Your task to perform on an android device: Clear the shopping cart on amazon.com. Image 0: 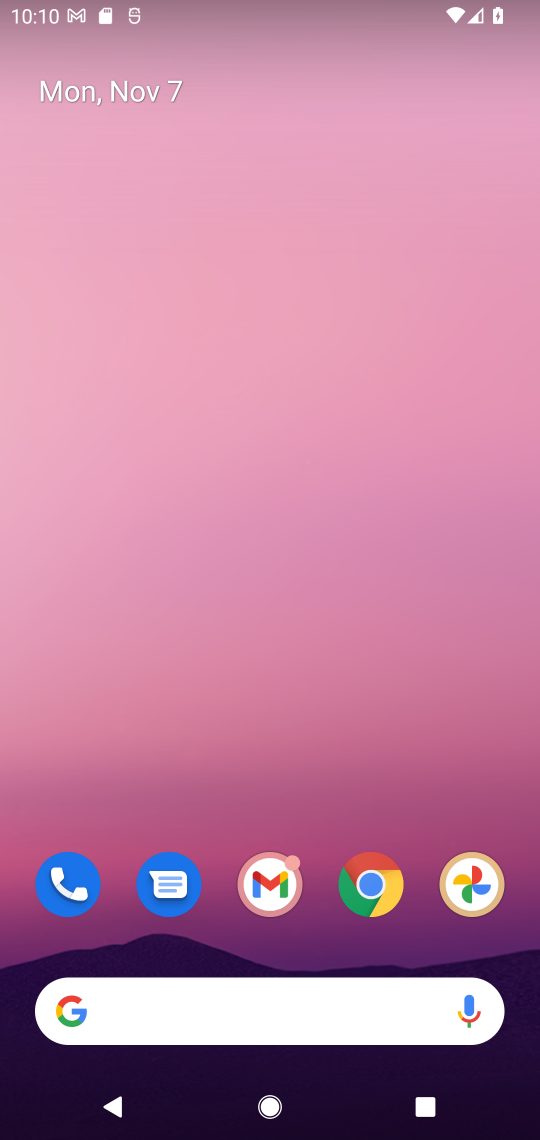
Step 0: click (374, 883)
Your task to perform on an android device: Clear the shopping cart on amazon.com. Image 1: 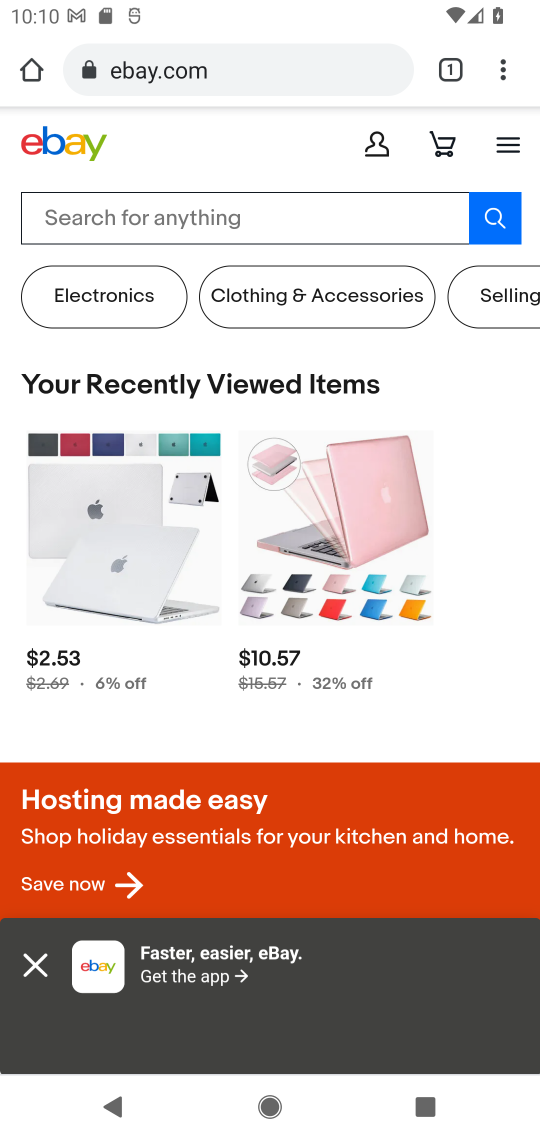
Step 1: click (30, 81)
Your task to perform on an android device: Clear the shopping cart on amazon.com. Image 2: 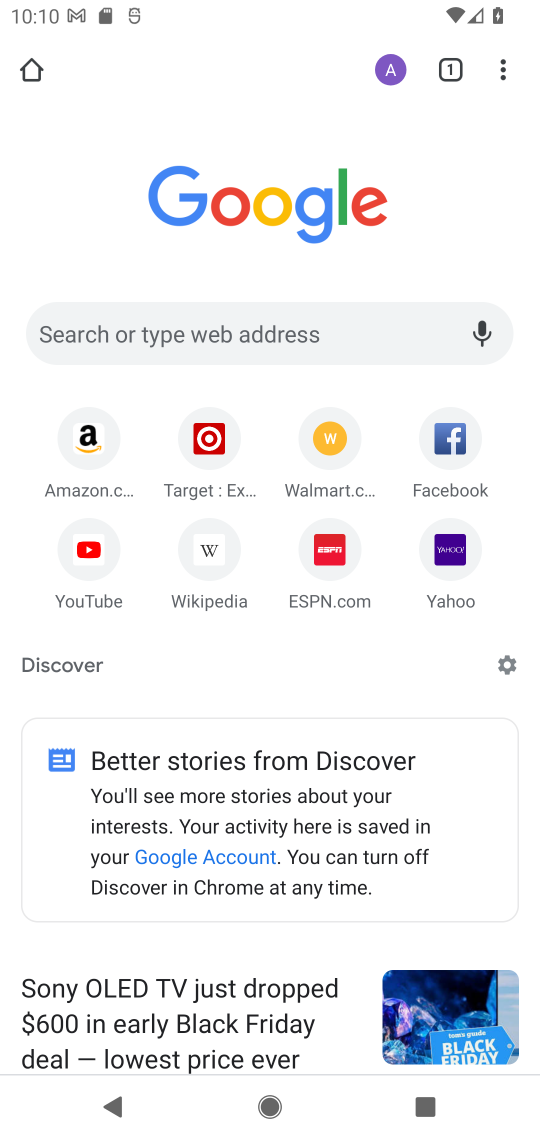
Step 2: click (106, 432)
Your task to perform on an android device: Clear the shopping cart on amazon.com. Image 3: 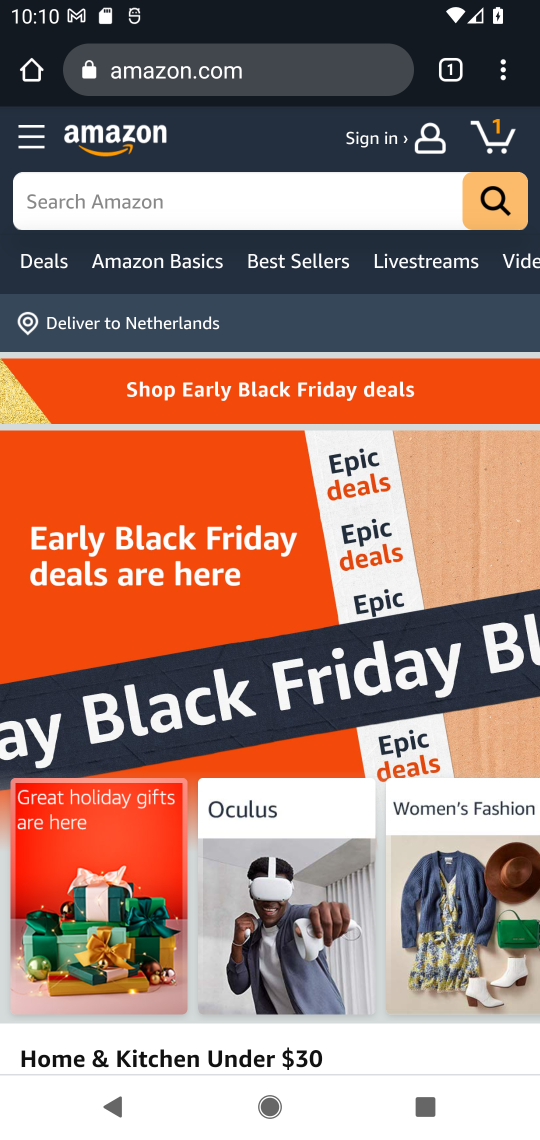
Step 3: click (488, 140)
Your task to perform on an android device: Clear the shopping cart on amazon.com. Image 4: 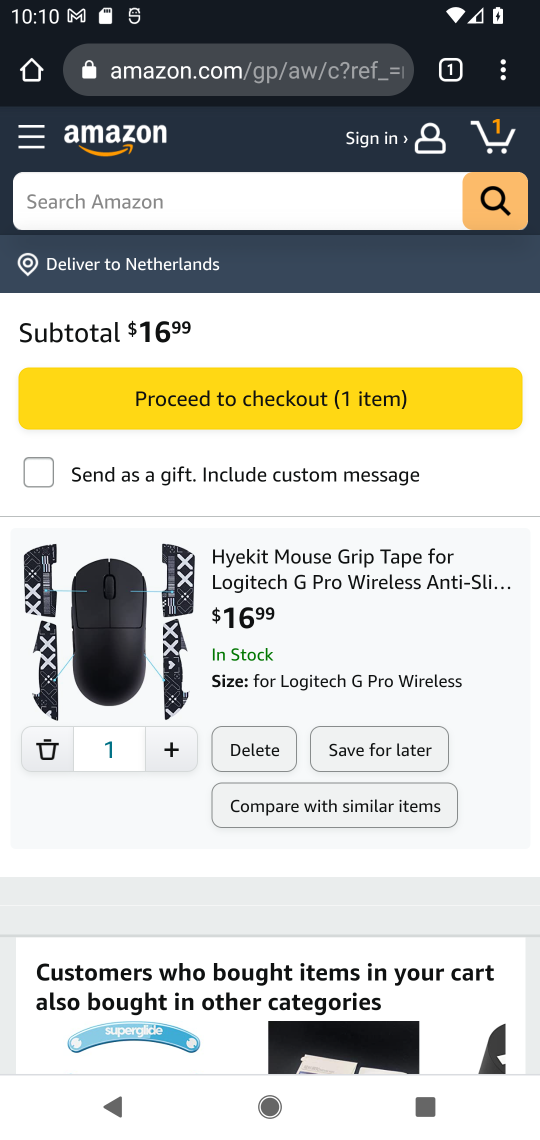
Step 4: click (224, 745)
Your task to perform on an android device: Clear the shopping cart on amazon.com. Image 5: 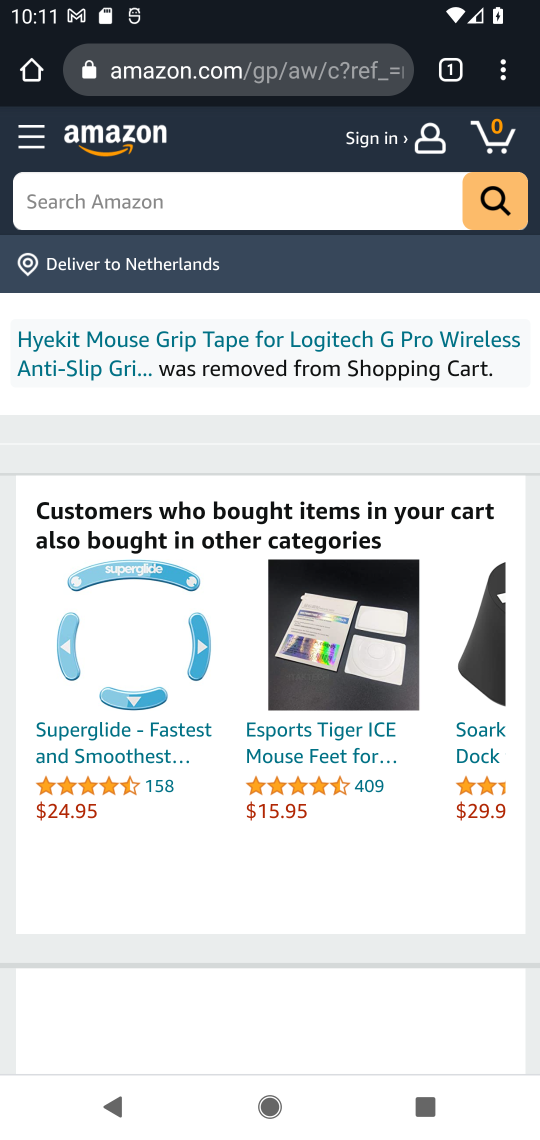
Step 5: task complete